Your task to perform on an android device: refresh tabs in the chrome app Image 0: 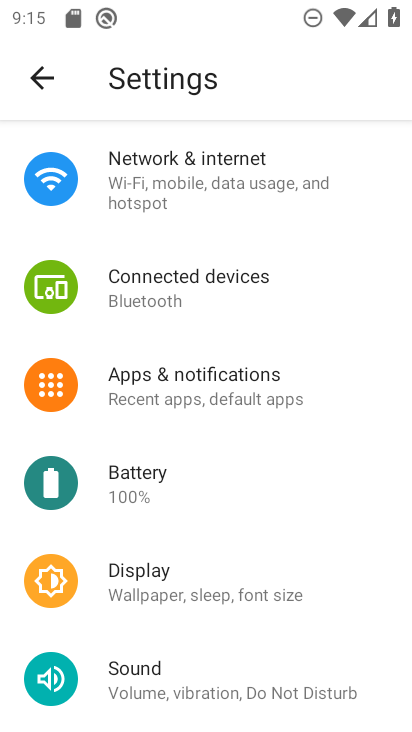
Step 0: press home button
Your task to perform on an android device: refresh tabs in the chrome app Image 1: 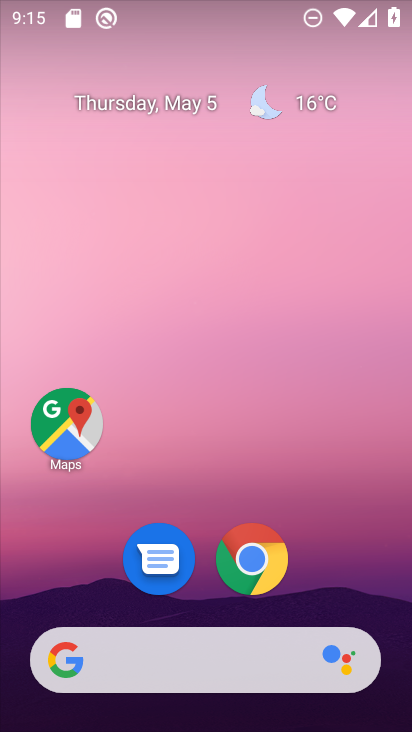
Step 1: click (252, 568)
Your task to perform on an android device: refresh tabs in the chrome app Image 2: 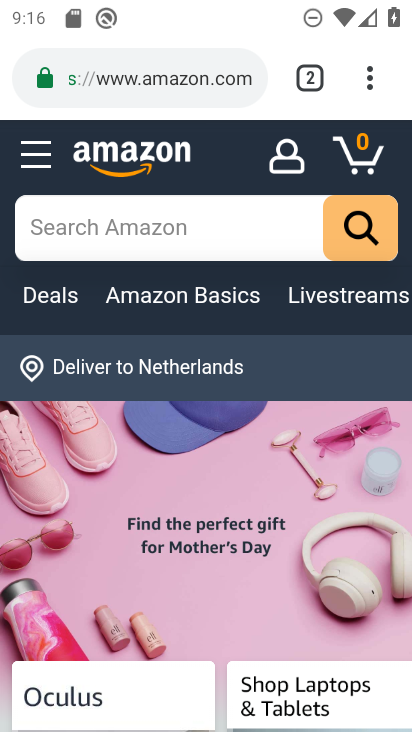
Step 2: click (371, 80)
Your task to perform on an android device: refresh tabs in the chrome app Image 3: 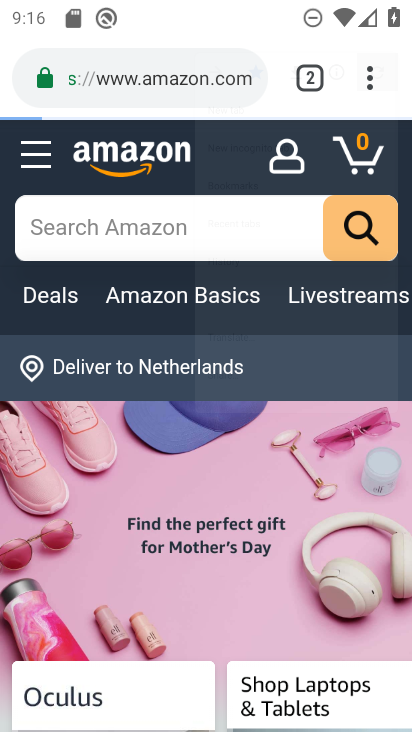
Step 3: click (371, 80)
Your task to perform on an android device: refresh tabs in the chrome app Image 4: 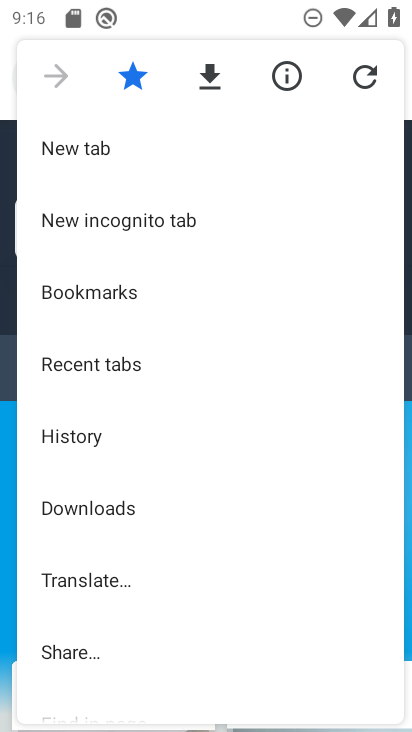
Step 4: task complete